Your task to perform on an android device: see sites visited before in the chrome app Image 0: 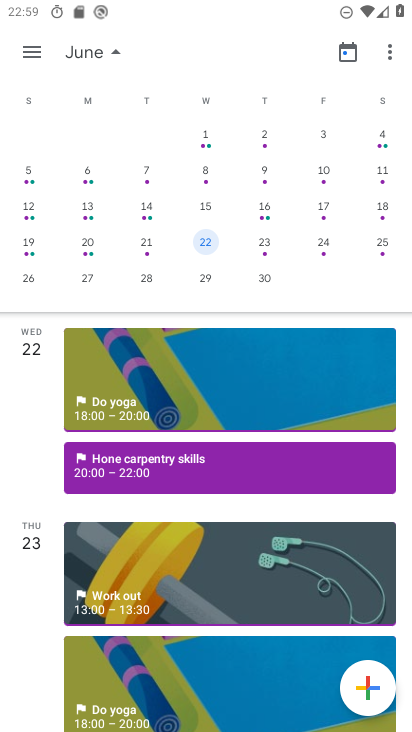
Step 0: press home button
Your task to perform on an android device: see sites visited before in the chrome app Image 1: 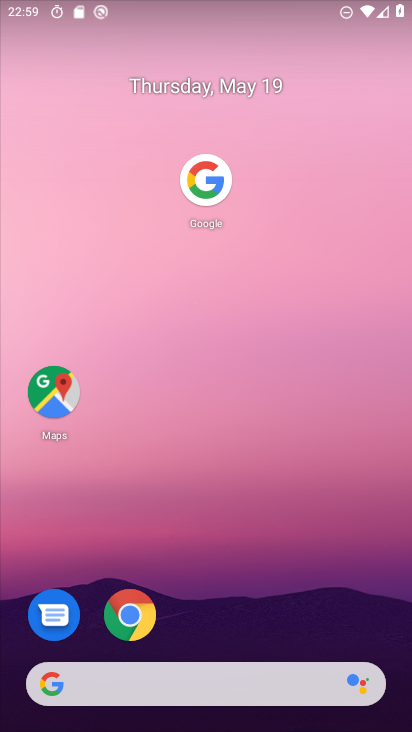
Step 1: click (127, 613)
Your task to perform on an android device: see sites visited before in the chrome app Image 2: 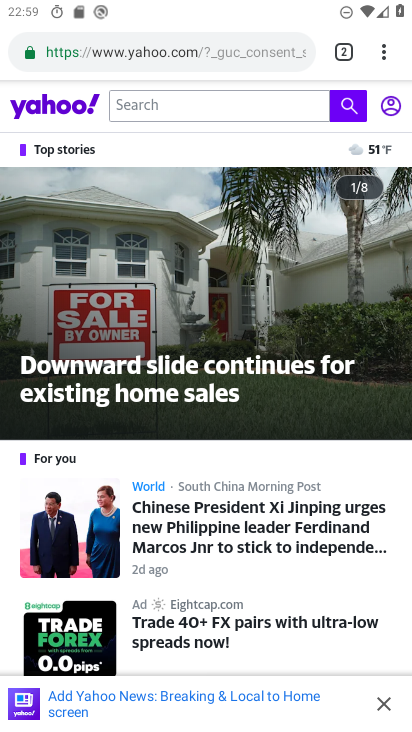
Step 2: click (376, 53)
Your task to perform on an android device: see sites visited before in the chrome app Image 3: 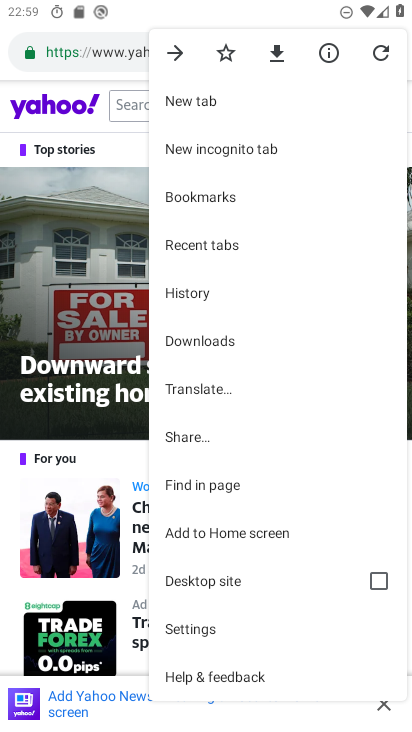
Step 3: click (198, 303)
Your task to perform on an android device: see sites visited before in the chrome app Image 4: 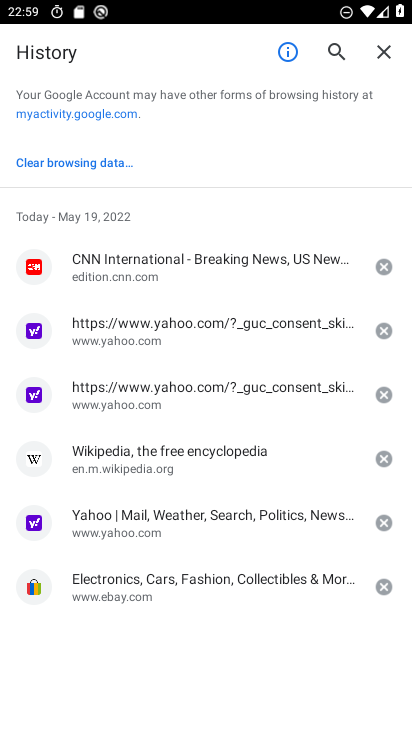
Step 4: task complete